Your task to perform on an android device: visit the assistant section in the google photos Image 0: 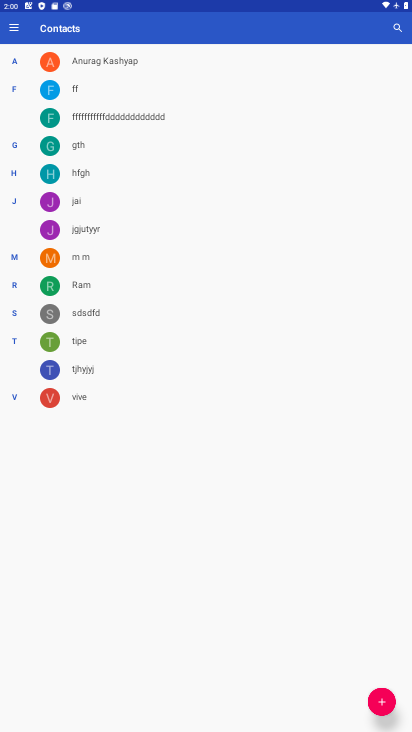
Step 0: press home button
Your task to perform on an android device: visit the assistant section in the google photos Image 1: 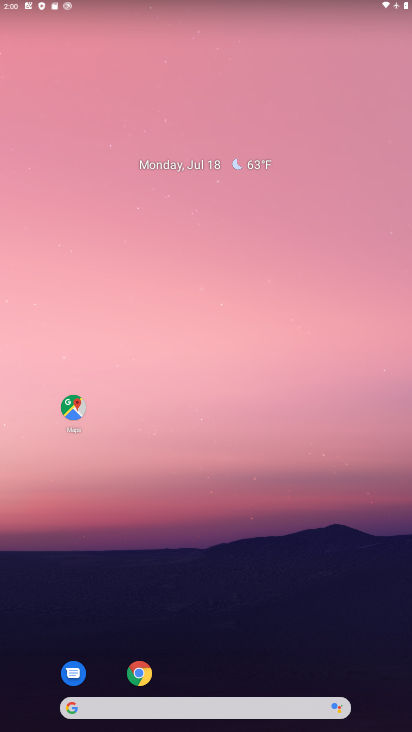
Step 1: drag from (166, 643) to (179, 429)
Your task to perform on an android device: visit the assistant section in the google photos Image 2: 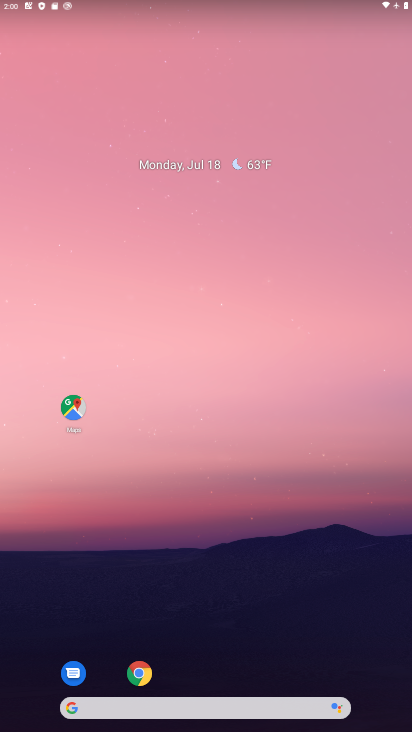
Step 2: drag from (205, 621) to (206, 91)
Your task to perform on an android device: visit the assistant section in the google photos Image 3: 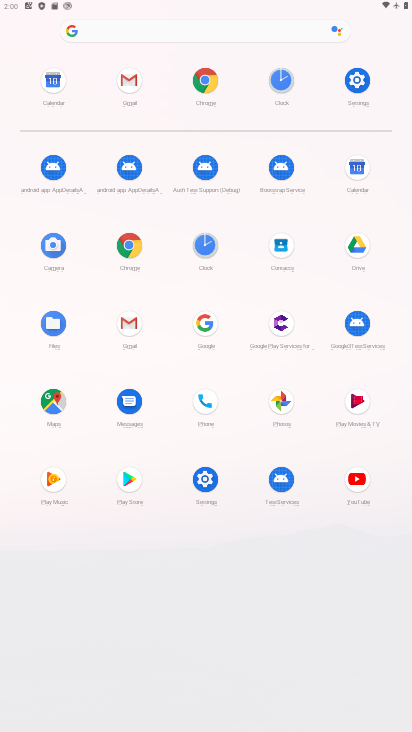
Step 3: click (281, 397)
Your task to perform on an android device: visit the assistant section in the google photos Image 4: 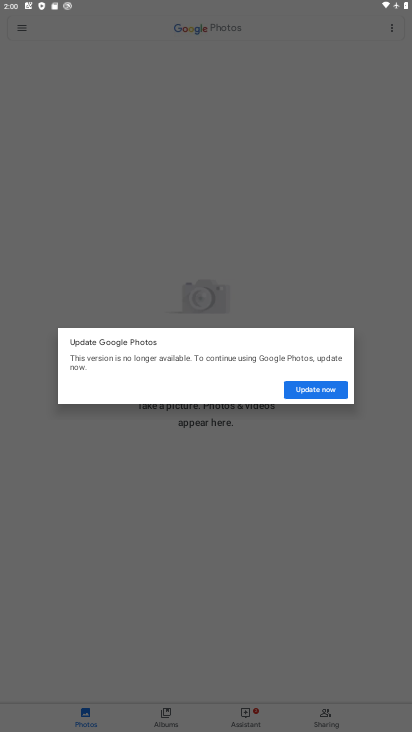
Step 4: click (318, 385)
Your task to perform on an android device: visit the assistant section in the google photos Image 5: 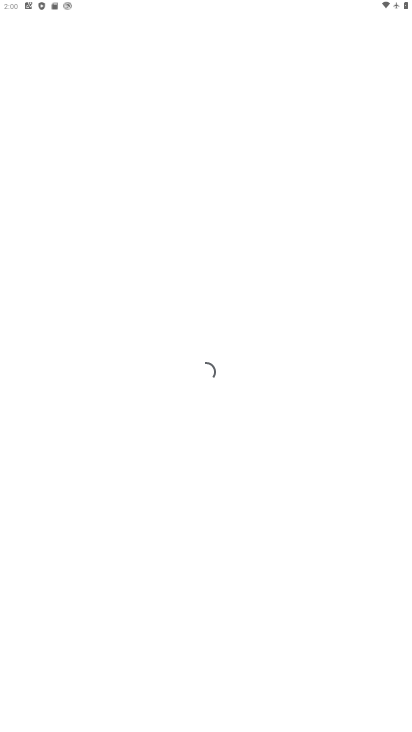
Step 5: press back button
Your task to perform on an android device: visit the assistant section in the google photos Image 6: 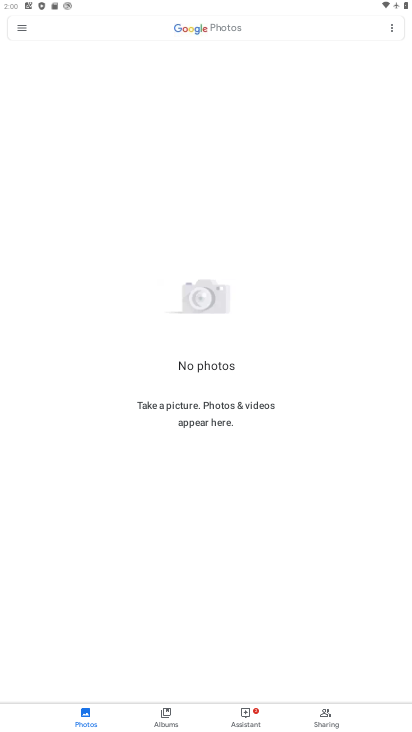
Step 6: click (248, 710)
Your task to perform on an android device: visit the assistant section in the google photos Image 7: 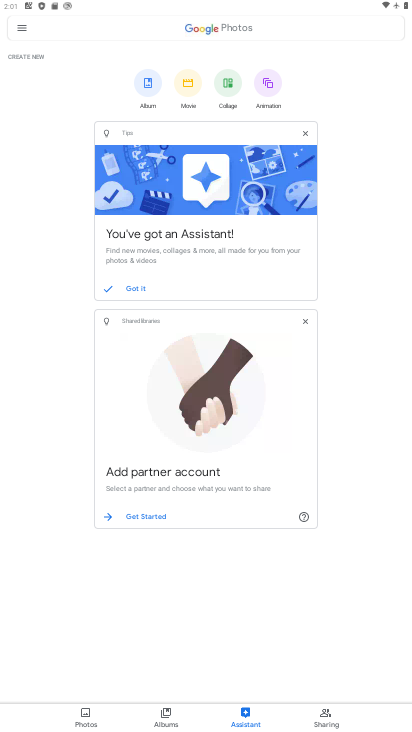
Step 7: task complete